Your task to perform on an android device: turn smart compose on in the gmail app Image 0: 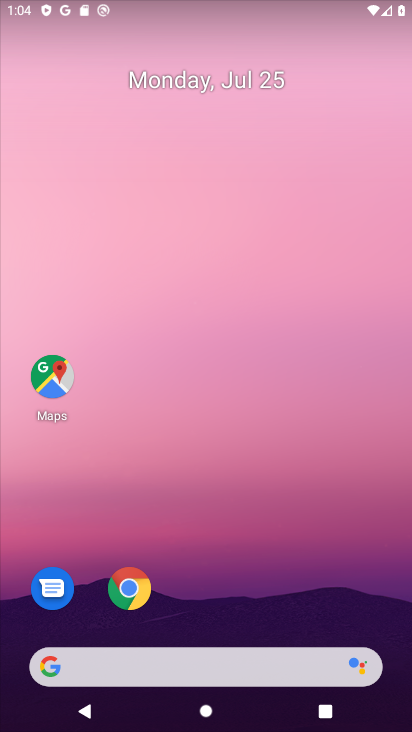
Step 0: click (157, 155)
Your task to perform on an android device: turn smart compose on in the gmail app Image 1: 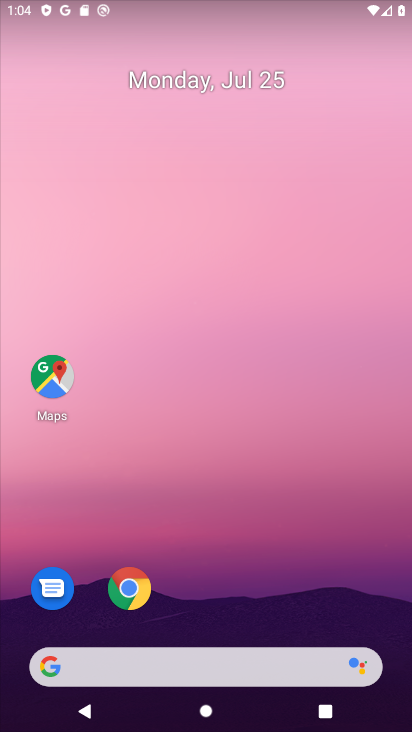
Step 1: drag from (194, 611) to (164, 214)
Your task to perform on an android device: turn smart compose on in the gmail app Image 2: 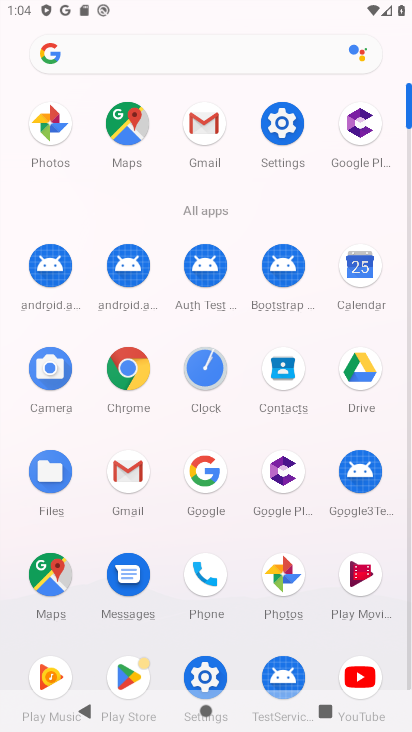
Step 2: click (205, 137)
Your task to perform on an android device: turn smart compose on in the gmail app Image 3: 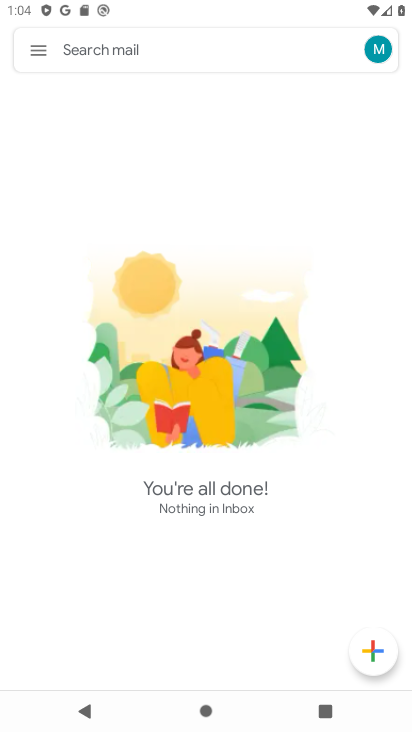
Step 3: click (35, 49)
Your task to perform on an android device: turn smart compose on in the gmail app Image 4: 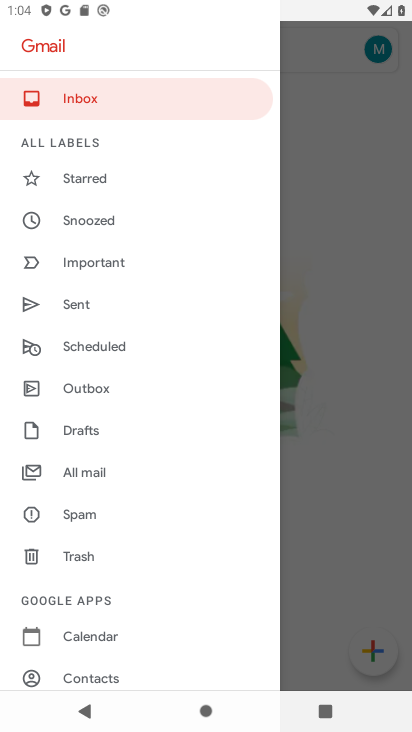
Step 4: click (105, 105)
Your task to perform on an android device: turn smart compose on in the gmail app Image 5: 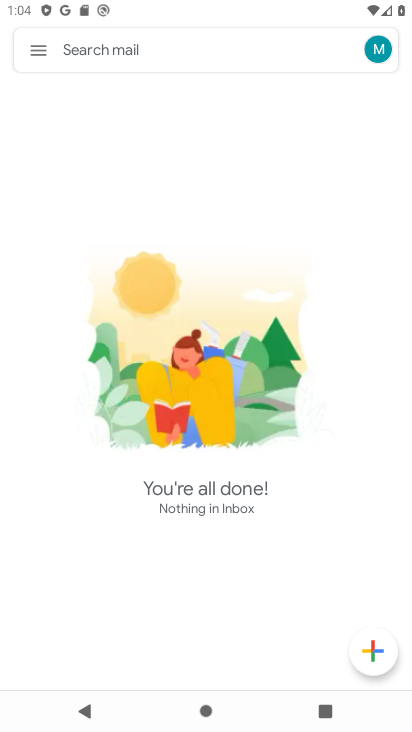
Step 5: click (33, 59)
Your task to perform on an android device: turn smart compose on in the gmail app Image 6: 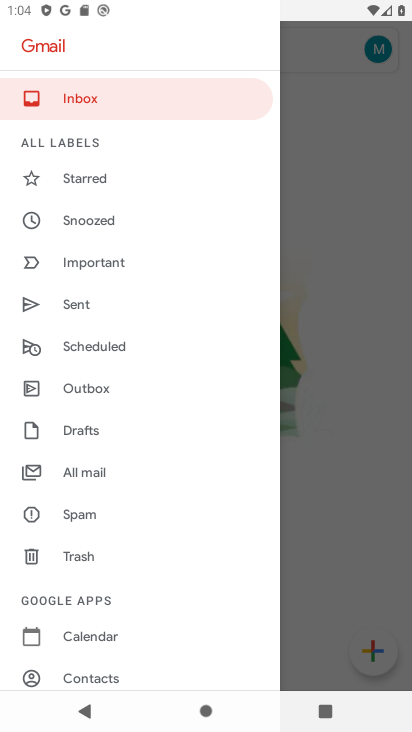
Step 6: drag from (117, 604) to (133, 366)
Your task to perform on an android device: turn smart compose on in the gmail app Image 7: 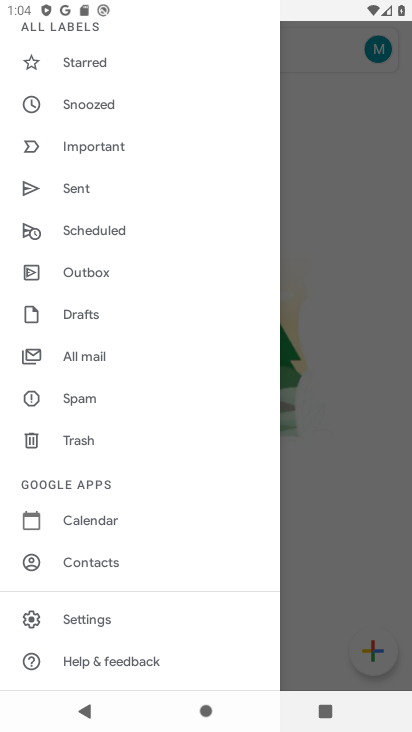
Step 7: click (86, 618)
Your task to perform on an android device: turn smart compose on in the gmail app Image 8: 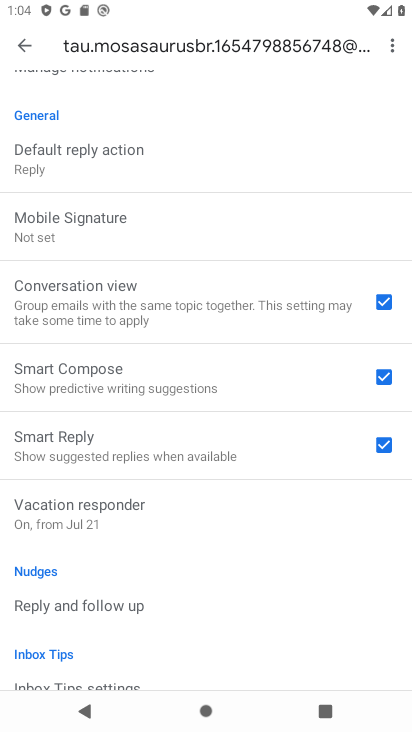
Step 8: task complete